Your task to perform on an android device: Search for sushi restaurants on Maps Image 0: 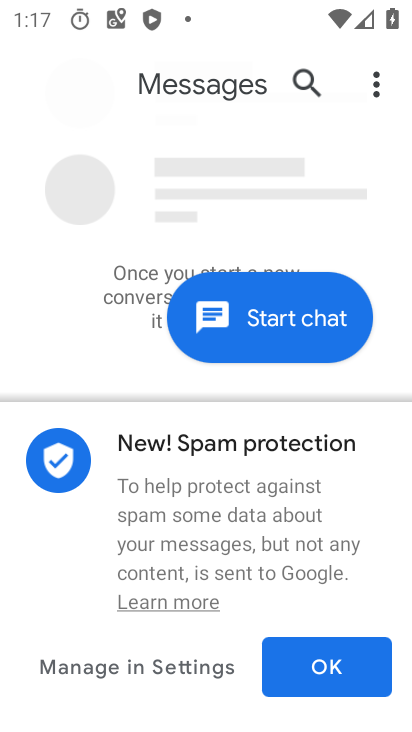
Step 0: press home button
Your task to perform on an android device: Search for sushi restaurants on Maps Image 1: 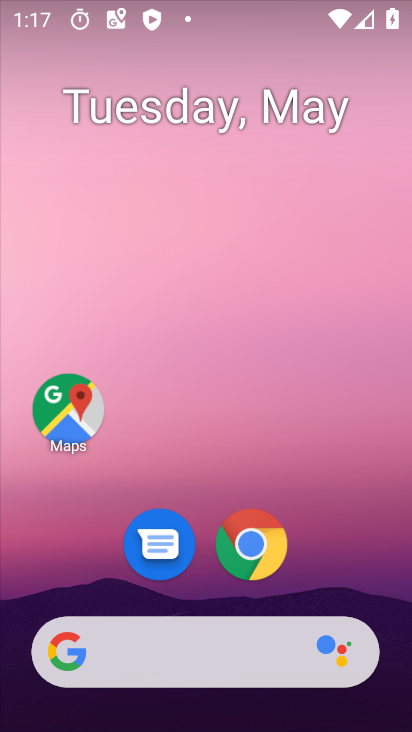
Step 1: click (88, 416)
Your task to perform on an android device: Search for sushi restaurants on Maps Image 2: 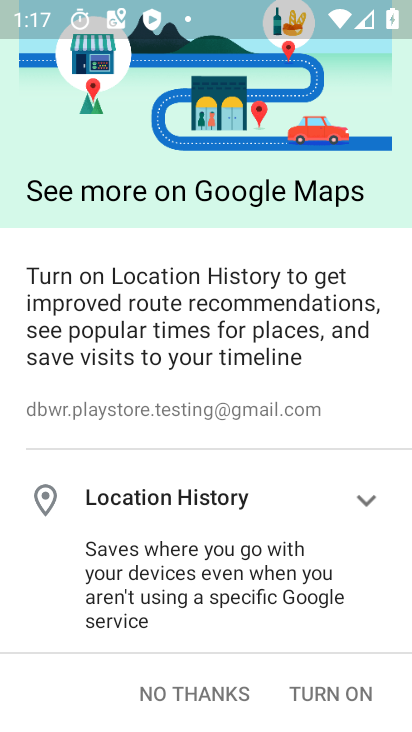
Step 2: click (164, 703)
Your task to perform on an android device: Search for sushi restaurants on Maps Image 3: 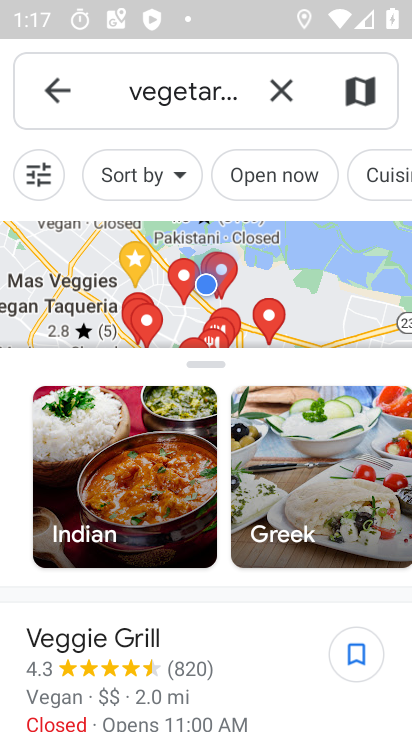
Step 3: click (281, 99)
Your task to perform on an android device: Search for sushi restaurants on Maps Image 4: 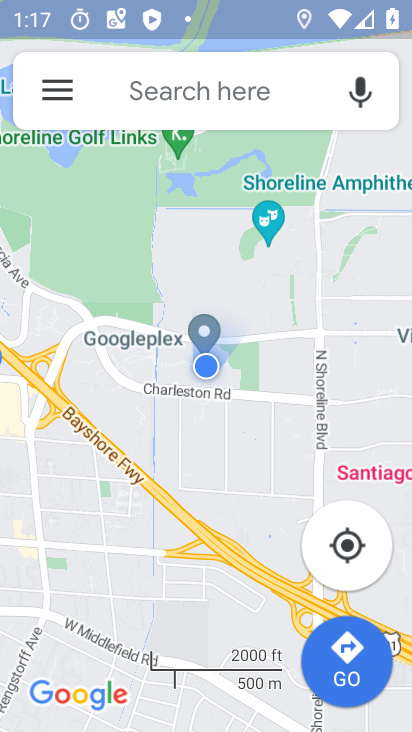
Step 4: click (151, 92)
Your task to perform on an android device: Search for sushi restaurants on Maps Image 5: 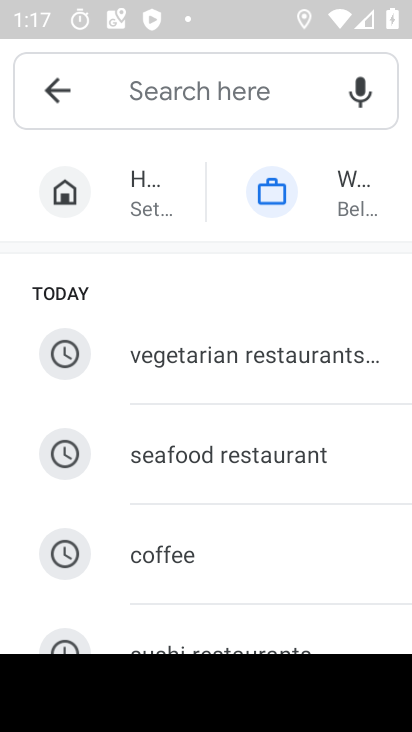
Step 5: type "sushi "
Your task to perform on an android device: Search for sushi restaurants on Maps Image 6: 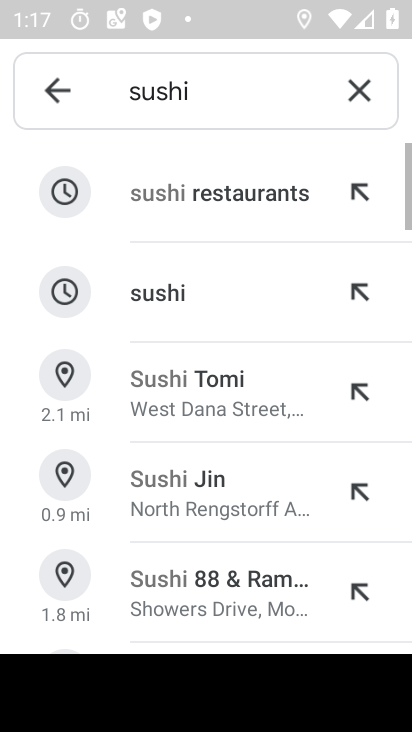
Step 6: click (231, 203)
Your task to perform on an android device: Search for sushi restaurants on Maps Image 7: 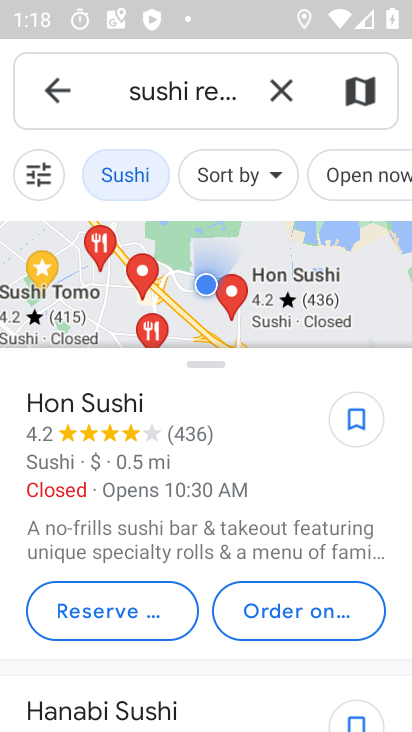
Step 7: task complete